Your task to perform on an android device: Go to settings Image 0: 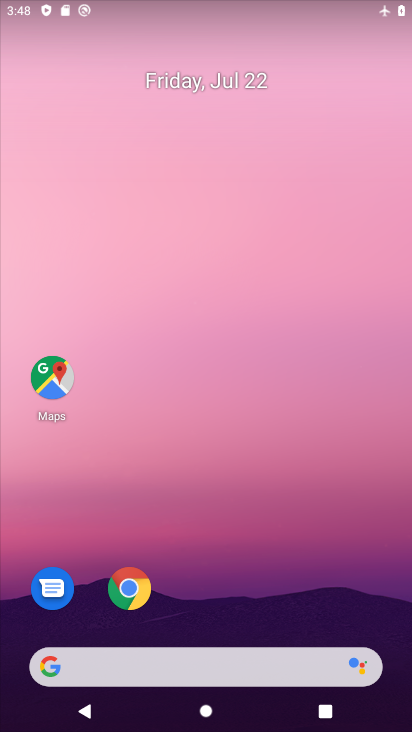
Step 0: click (241, 61)
Your task to perform on an android device: Go to settings Image 1: 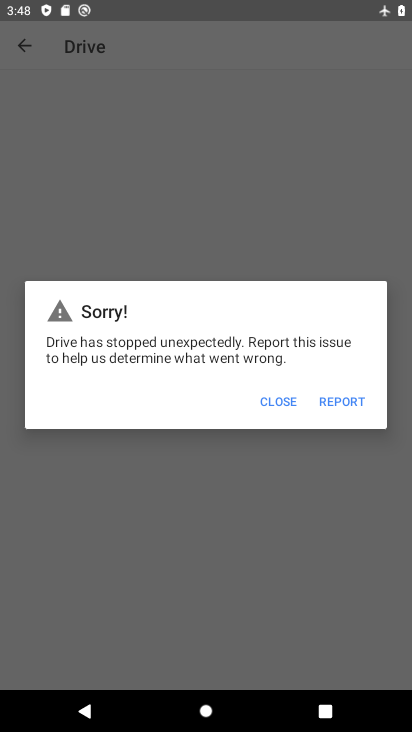
Step 1: press home button
Your task to perform on an android device: Go to settings Image 2: 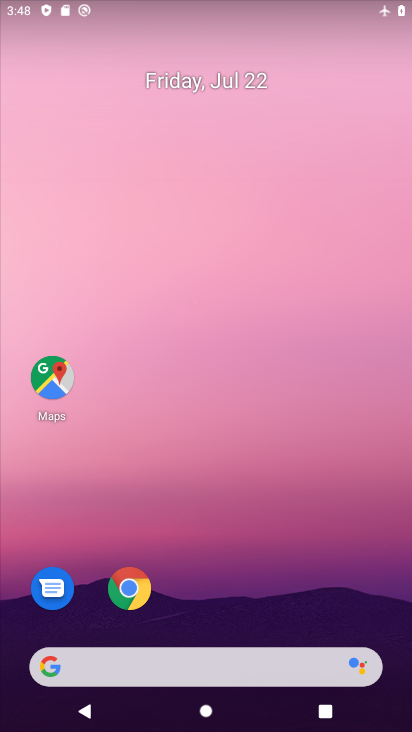
Step 2: drag from (235, 621) to (258, 230)
Your task to perform on an android device: Go to settings Image 3: 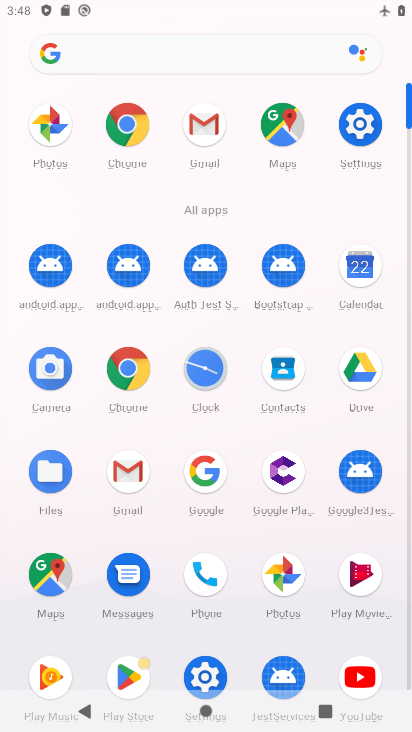
Step 3: click (364, 137)
Your task to perform on an android device: Go to settings Image 4: 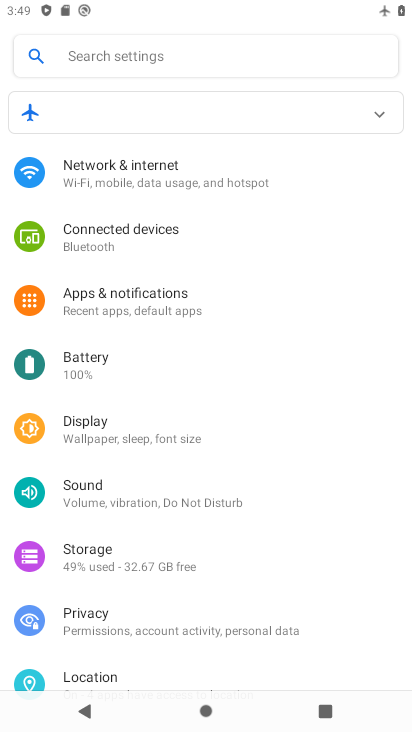
Step 4: task complete